Your task to perform on an android device: open app "Flipkart Online Shopping App" (install if not already installed) and go to login screen Image 0: 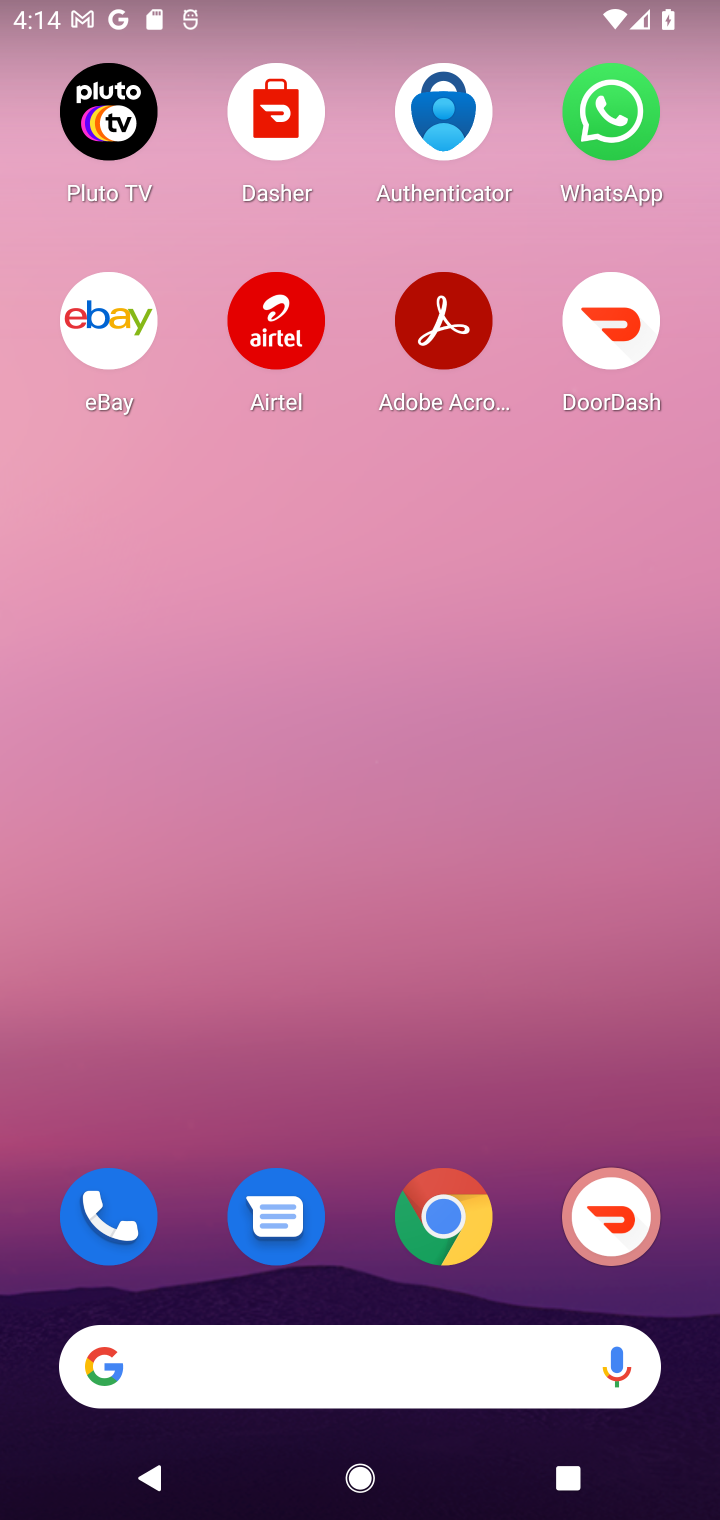
Step 0: drag from (341, 1087) to (238, 100)
Your task to perform on an android device: open app "Flipkart Online Shopping App" (install if not already installed) and go to login screen Image 1: 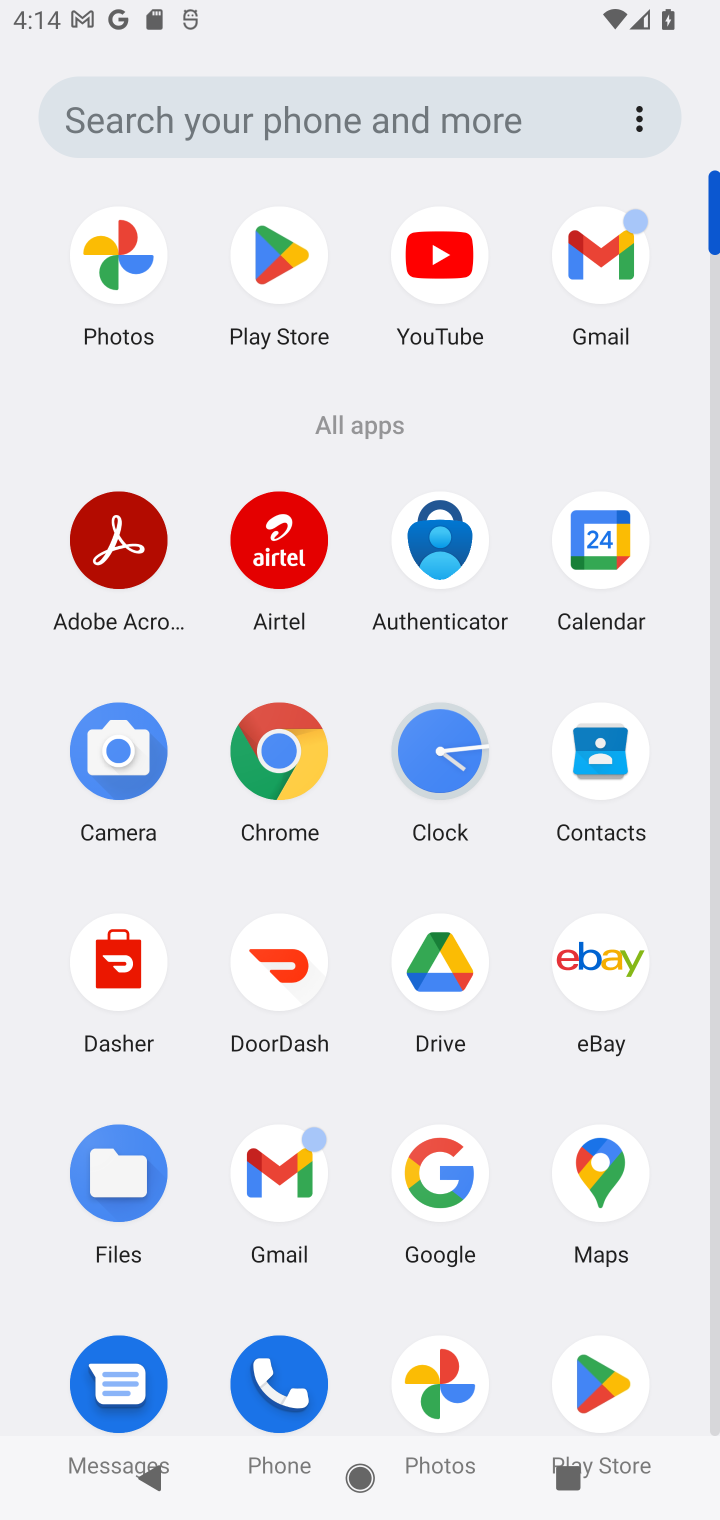
Step 1: click (283, 226)
Your task to perform on an android device: open app "Flipkart Online Shopping App" (install if not already installed) and go to login screen Image 2: 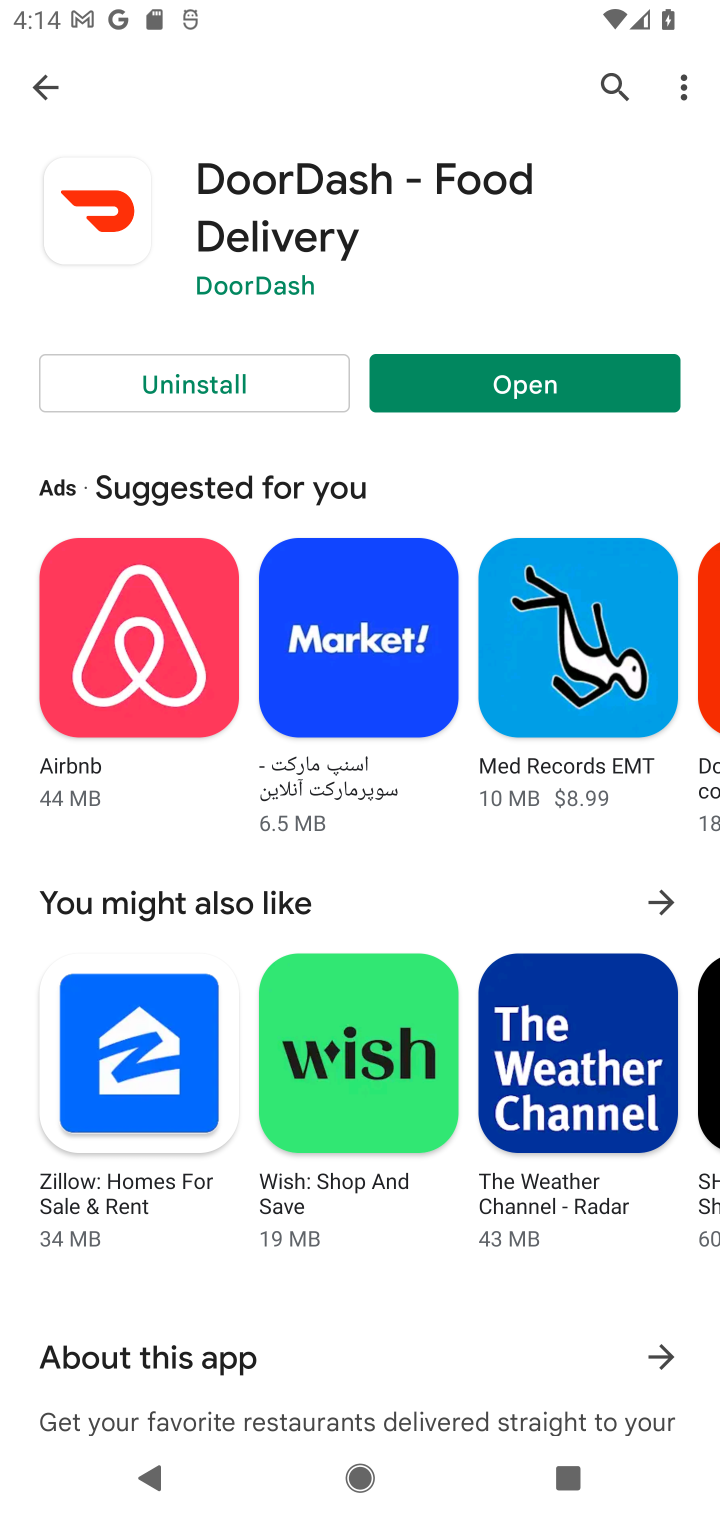
Step 2: click (597, 86)
Your task to perform on an android device: open app "Flipkart Online Shopping App" (install if not already installed) and go to login screen Image 3: 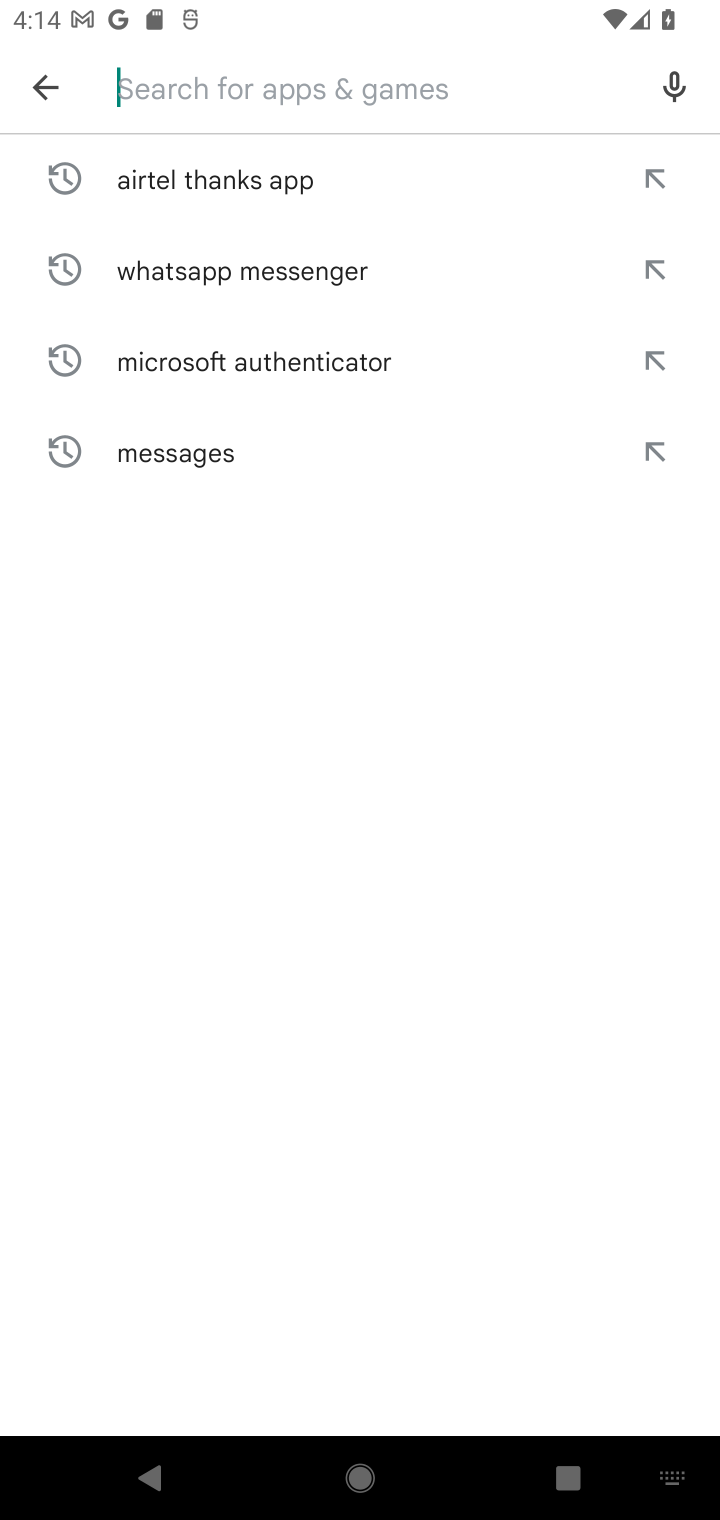
Step 3: type "Flipkart Online Shopping App"
Your task to perform on an android device: open app "Flipkart Online Shopping App" (install if not already installed) and go to login screen Image 4: 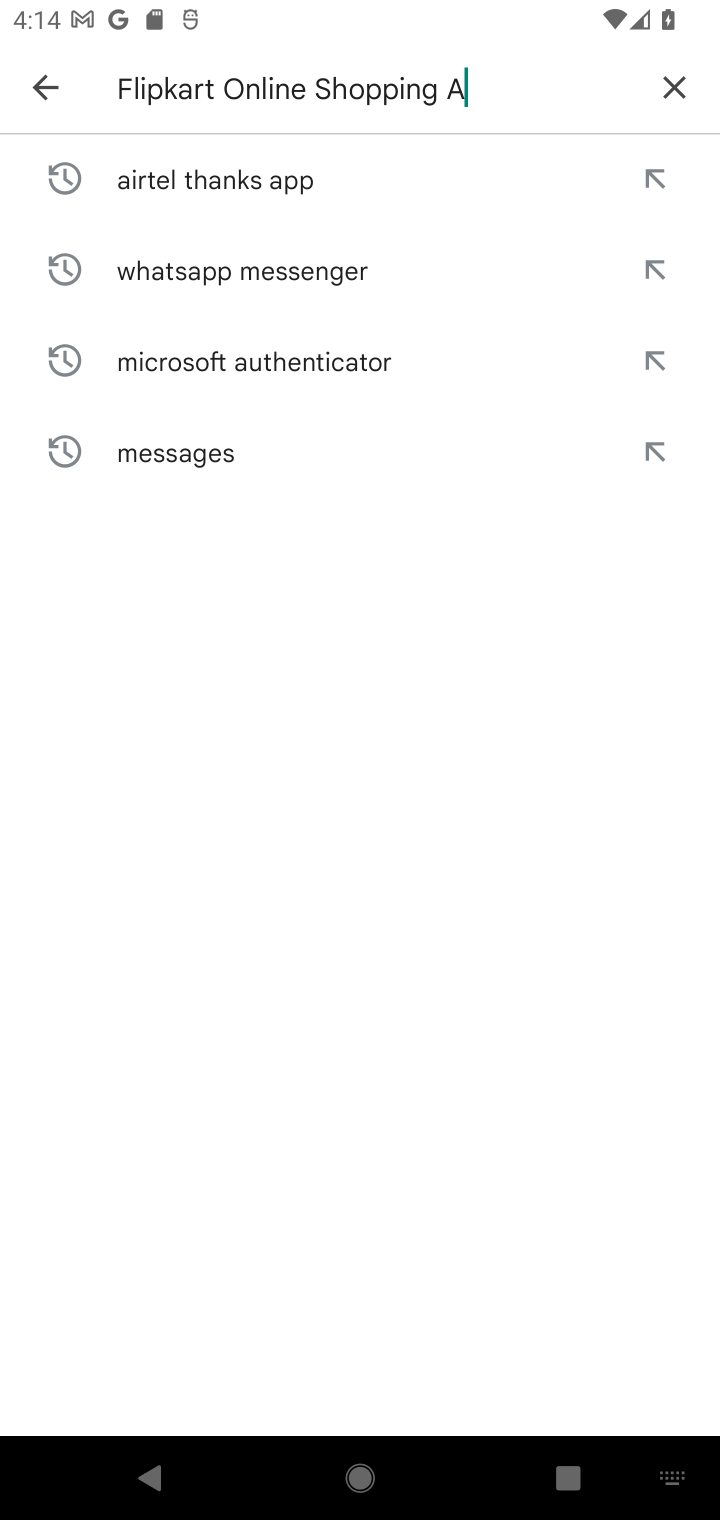
Step 4: type ""
Your task to perform on an android device: open app "Flipkart Online Shopping App" (install if not already installed) and go to login screen Image 5: 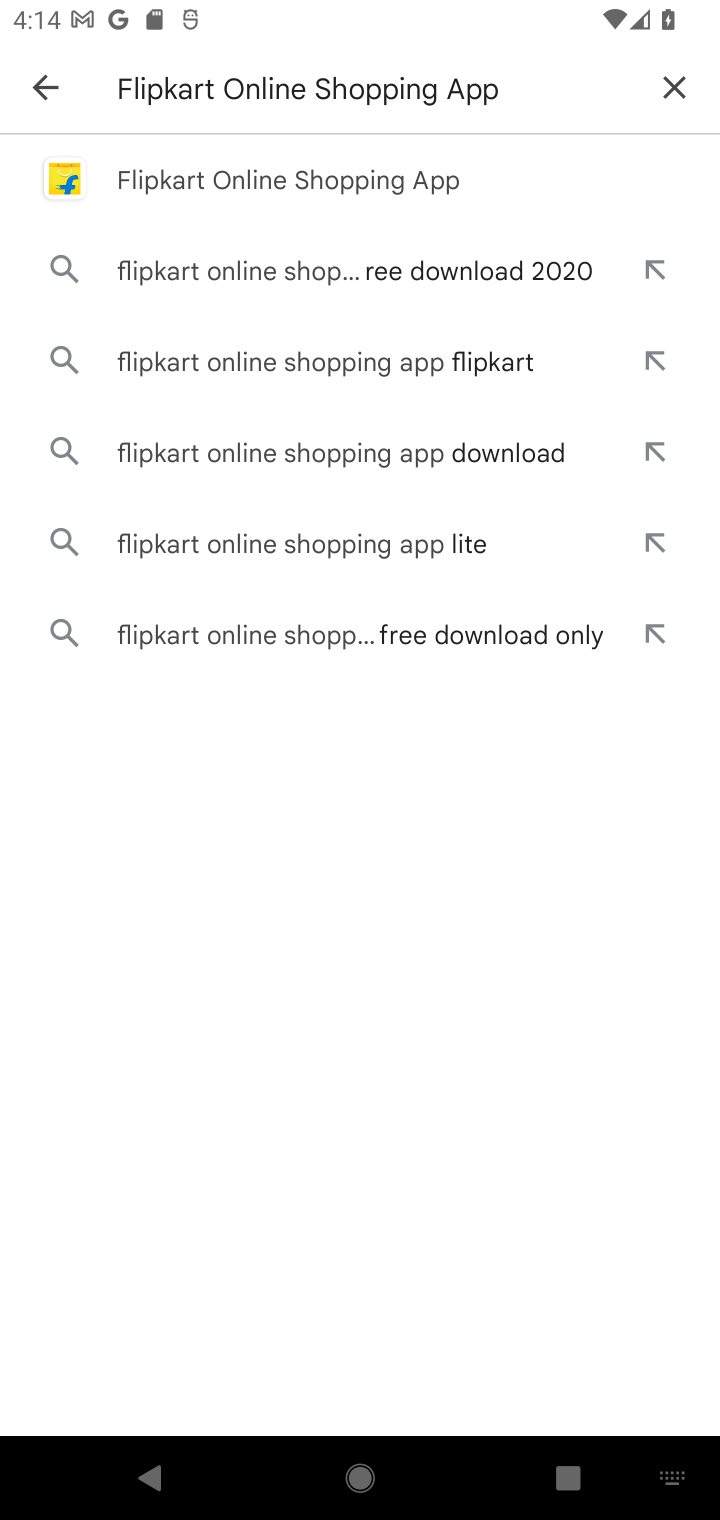
Step 5: click (373, 191)
Your task to perform on an android device: open app "Flipkart Online Shopping App" (install if not already installed) and go to login screen Image 6: 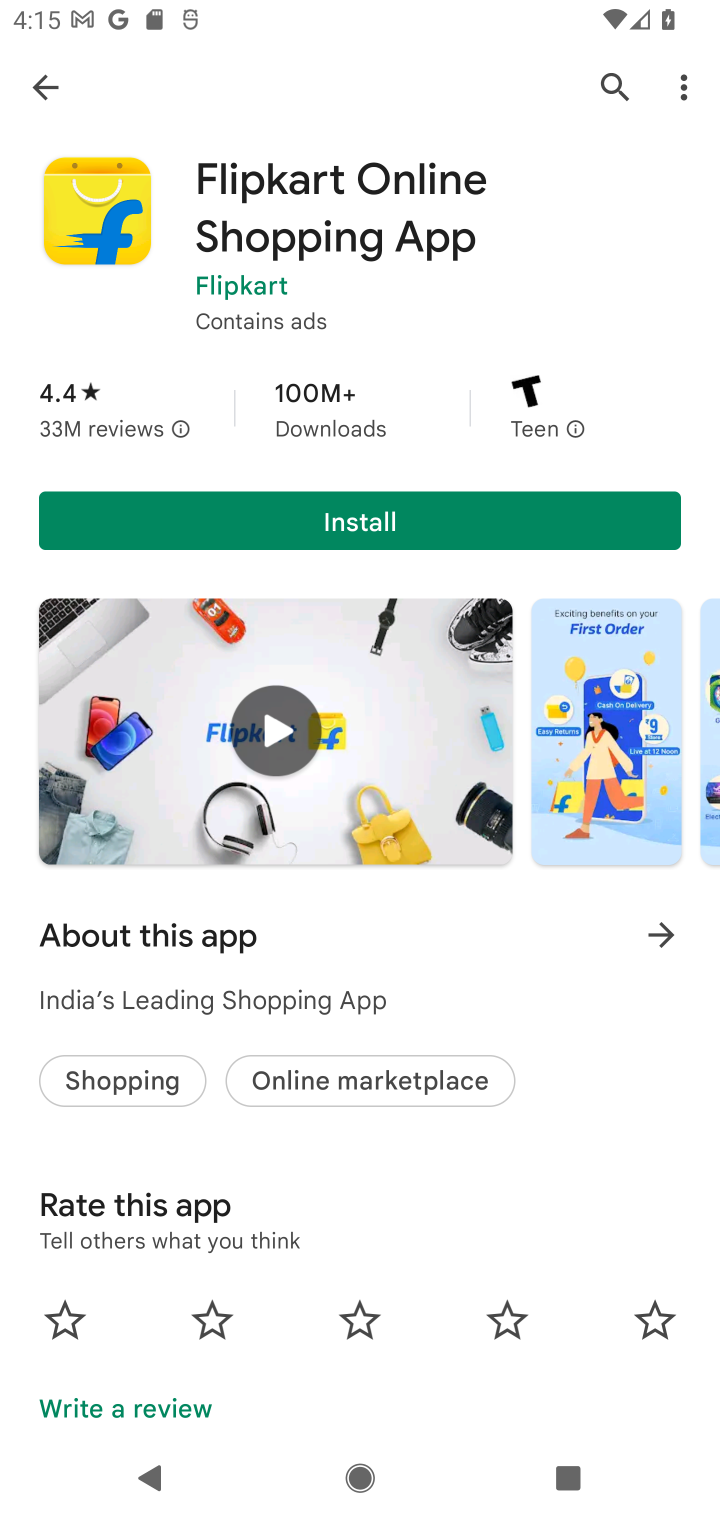
Step 6: click (330, 533)
Your task to perform on an android device: open app "Flipkart Online Shopping App" (install if not already installed) and go to login screen Image 7: 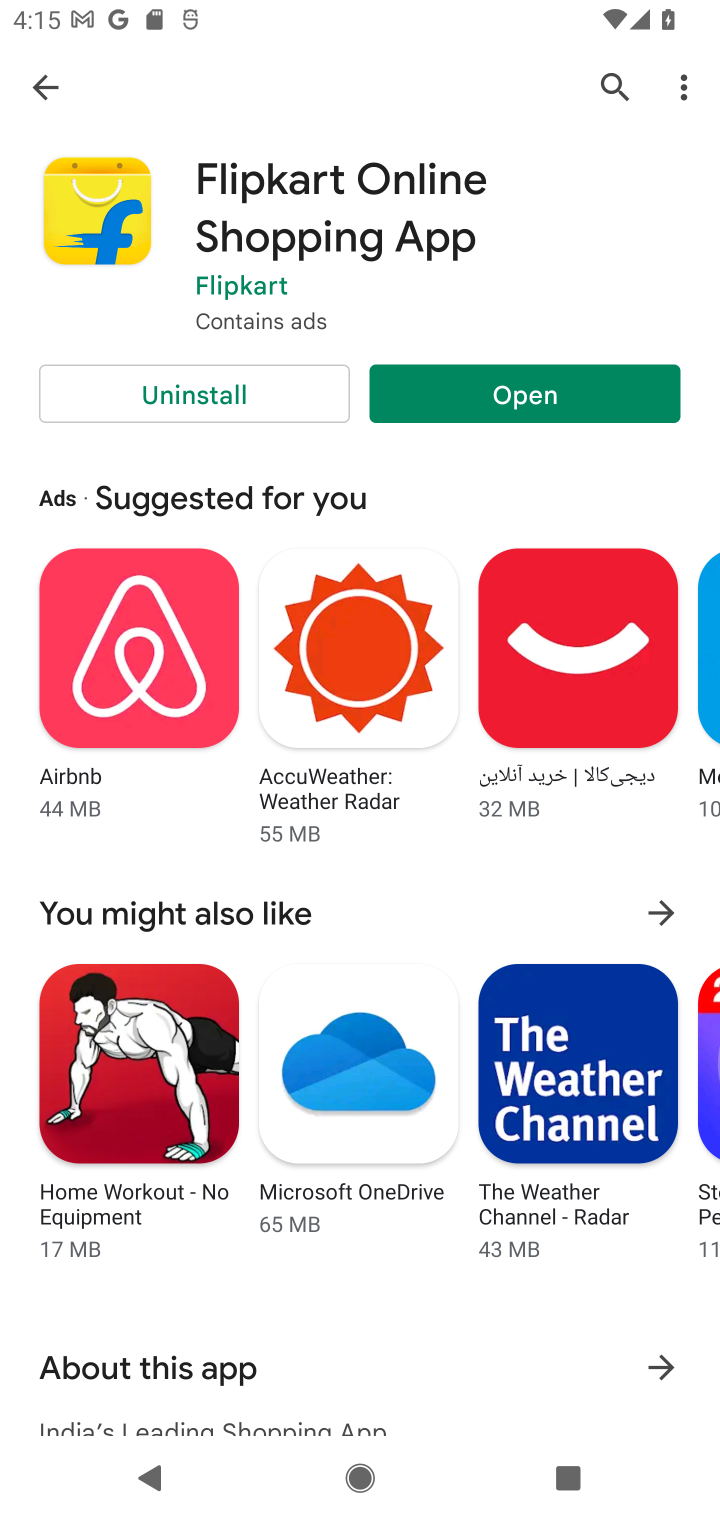
Step 7: click (483, 386)
Your task to perform on an android device: open app "Flipkart Online Shopping App" (install if not already installed) and go to login screen Image 8: 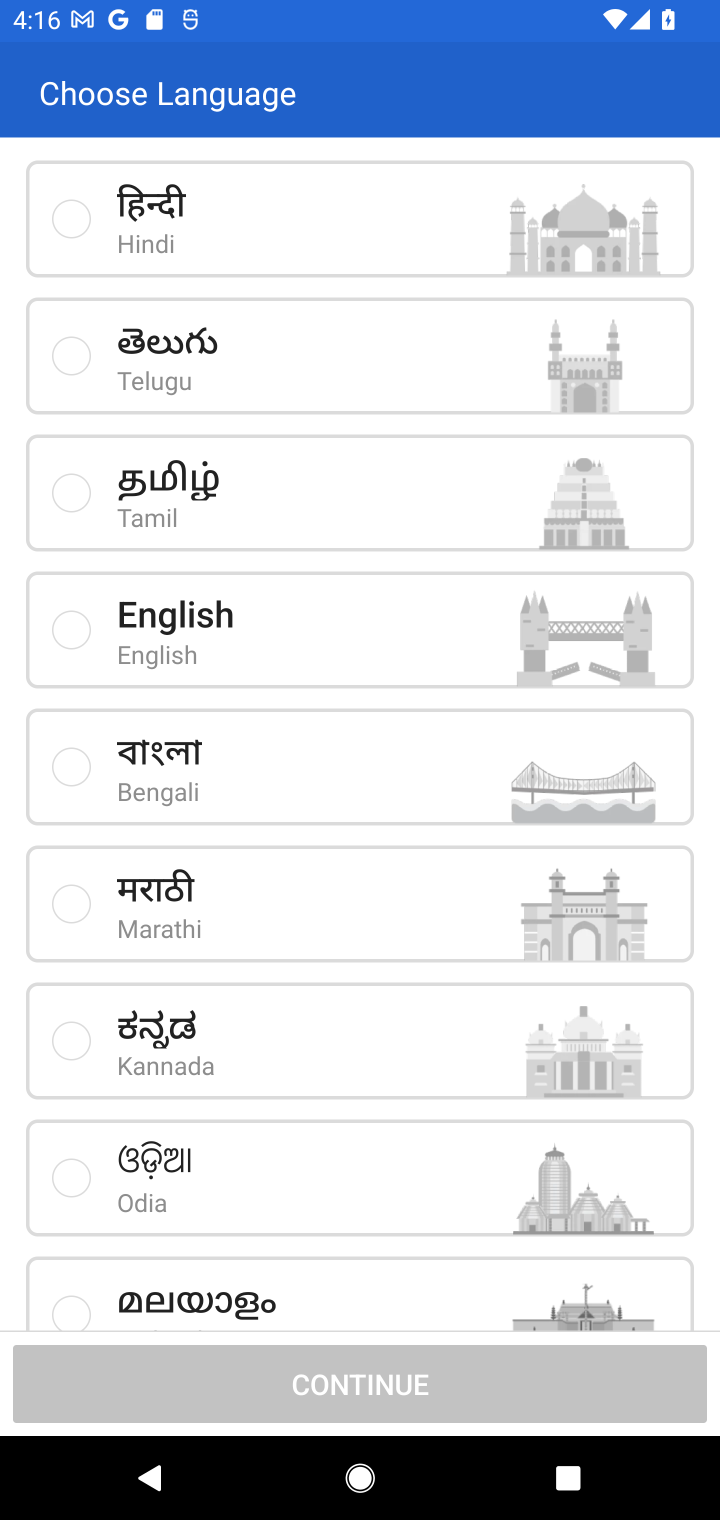
Step 8: task complete